Your task to perform on an android device: Do I have any events this weekend? Image 0: 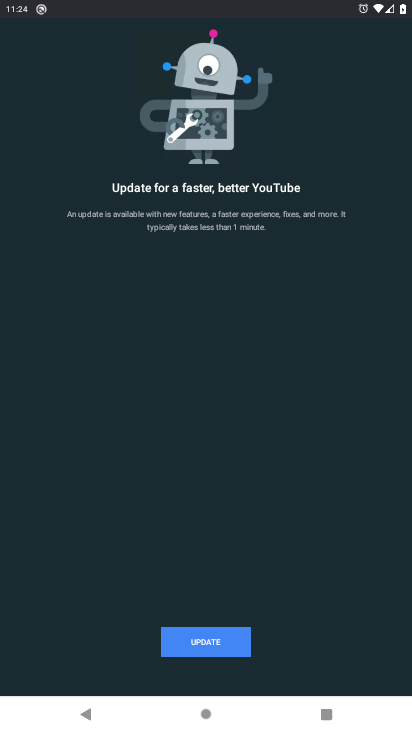
Step 0: press home button
Your task to perform on an android device: Do I have any events this weekend? Image 1: 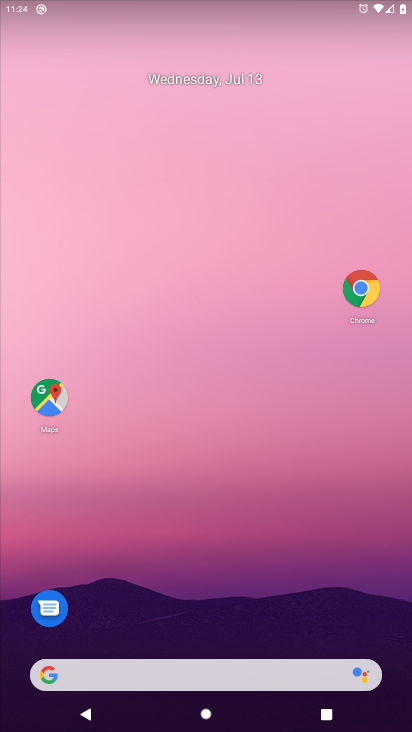
Step 1: drag from (88, 625) to (248, 14)
Your task to perform on an android device: Do I have any events this weekend? Image 2: 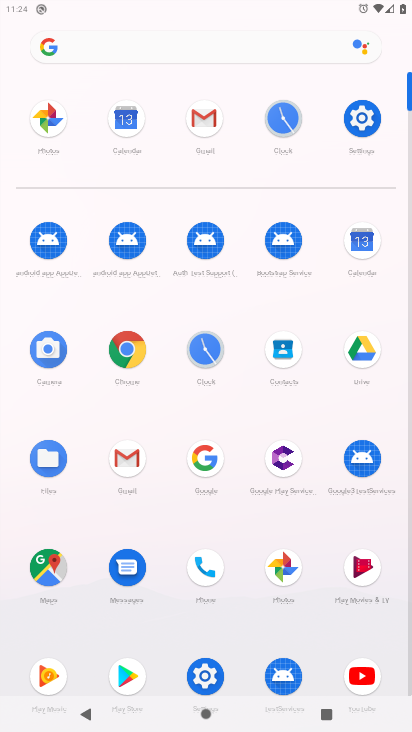
Step 2: click (361, 255)
Your task to perform on an android device: Do I have any events this weekend? Image 3: 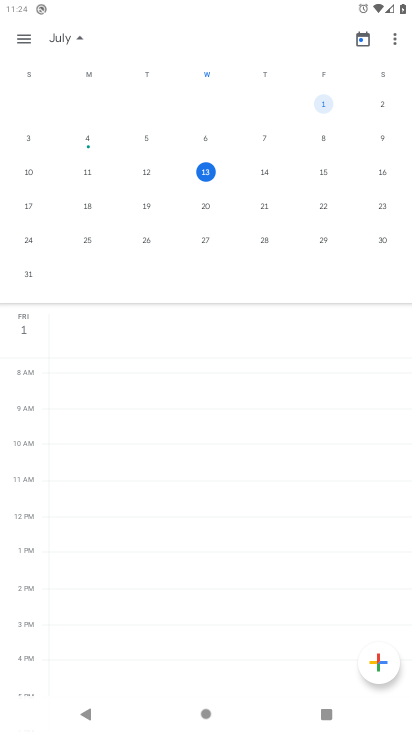
Step 3: task complete